Your task to perform on an android device: clear all cookies in the chrome app Image 0: 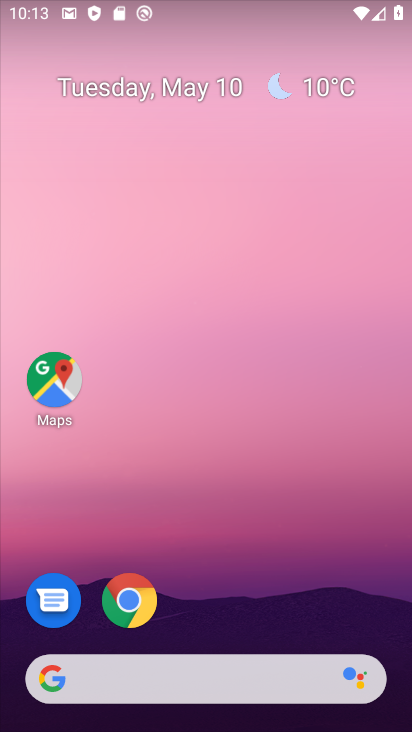
Step 0: click (144, 608)
Your task to perform on an android device: clear all cookies in the chrome app Image 1: 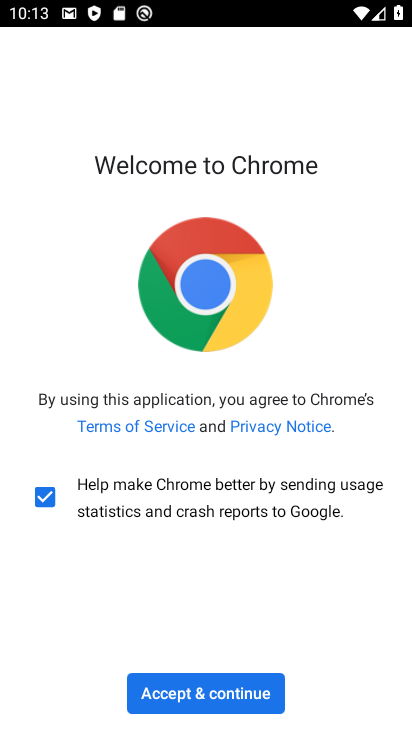
Step 1: click (240, 688)
Your task to perform on an android device: clear all cookies in the chrome app Image 2: 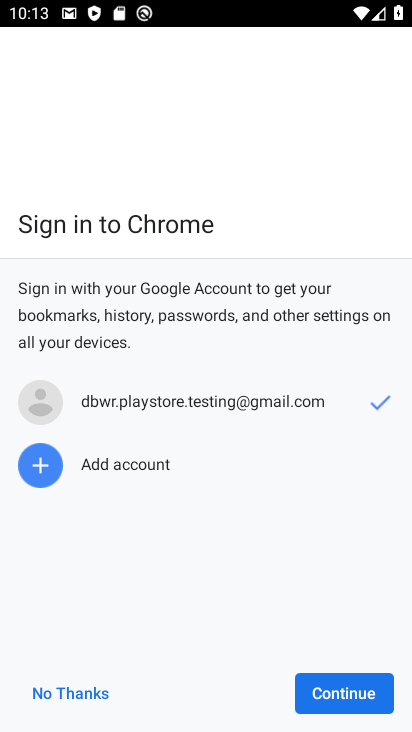
Step 2: click (334, 679)
Your task to perform on an android device: clear all cookies in the chrome app Image 3: 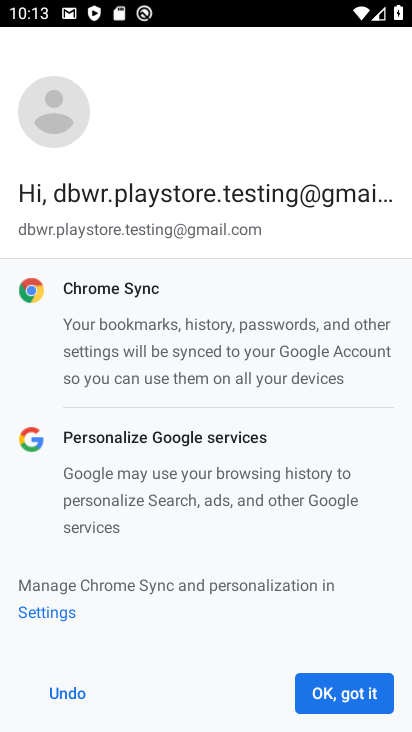
Step 3: click (345, 692)
Your task to perform on an android device: clear all cookies in the chrome app Image 4: 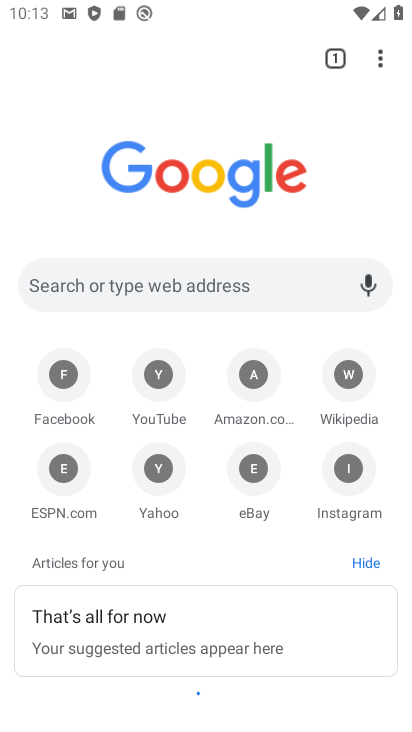
Step 4: click (383, 48)
Your task to perform on an android device: clear all cookies in the chrome app Image 5: 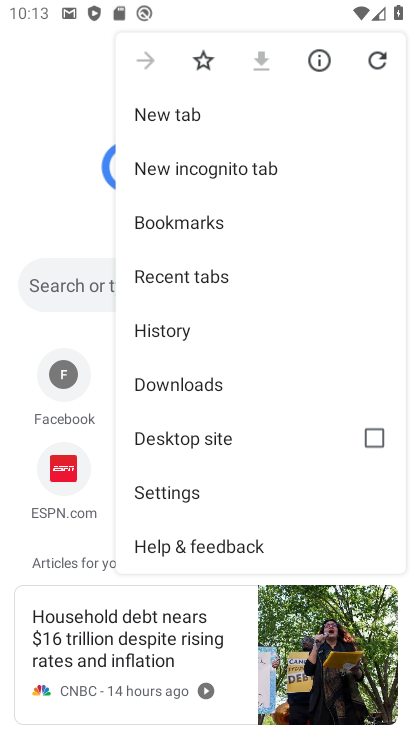
Step 5: click (198, 486)
Your task to perform on an android device: clear all cookies in the chrome app Image 6: 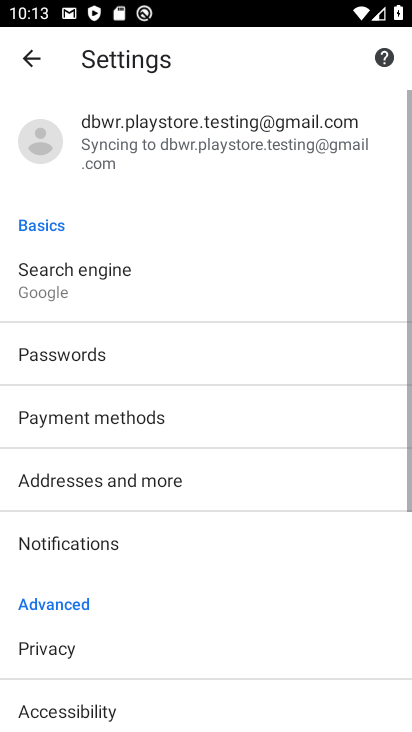
Step 6: drag from (203, 664) to (212, 203)
Your task to perform on an android device: clear all cookies in the chrome app Image 7: 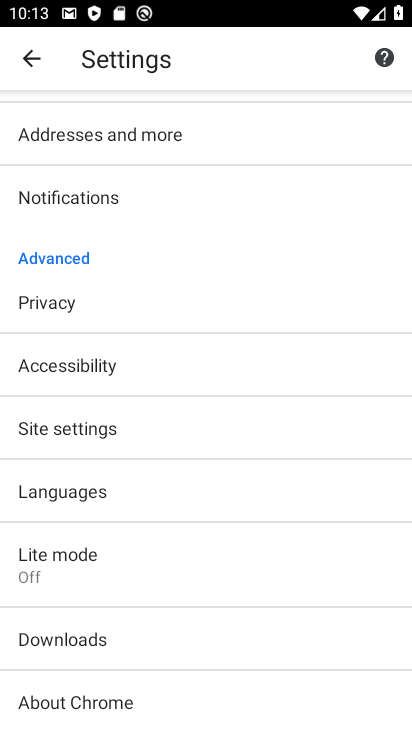
Step 7: click (99, 427)
Your task to perform on an android device: clear all cookies in the chrome app Image 8: 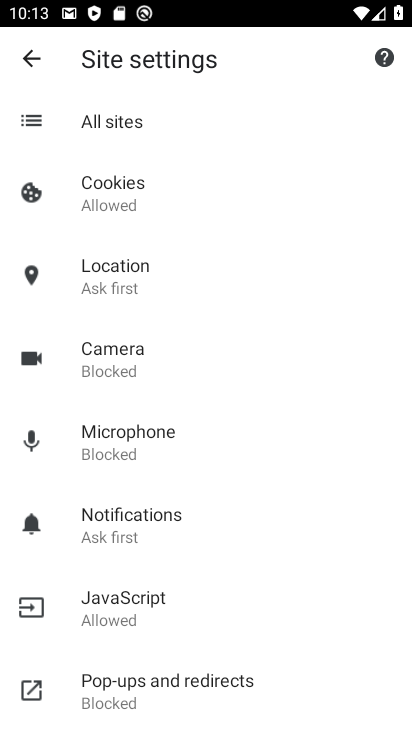
Step 8: click (174, 208)
Your task to perform on an android device: clear all cookies in the chrome app Image 9: 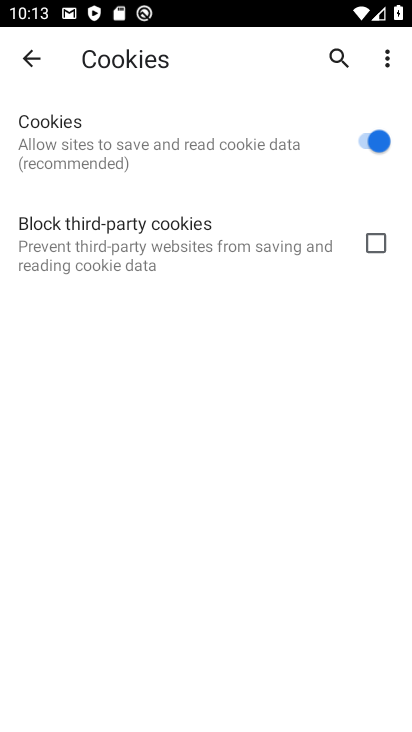
Step 9: task complete